Your task to perform on an android device: Go to network settings Image 0: 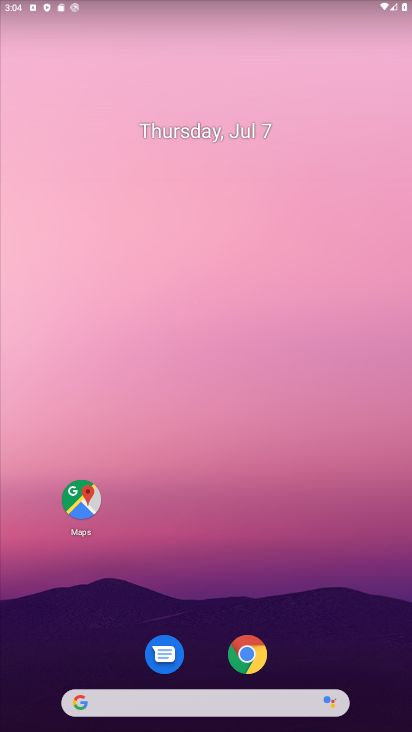
Step 0: drag from (332, 650) to (288, 111)
Your task to perform on an android device: Go to network settings Image 1: 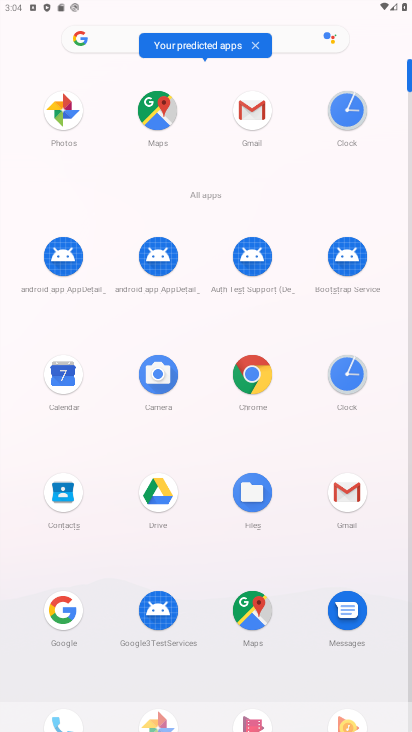
Step 1: drag from (202, 532) to (221, 215)
Your task to perform on an android device: Go to network settings Image 2: 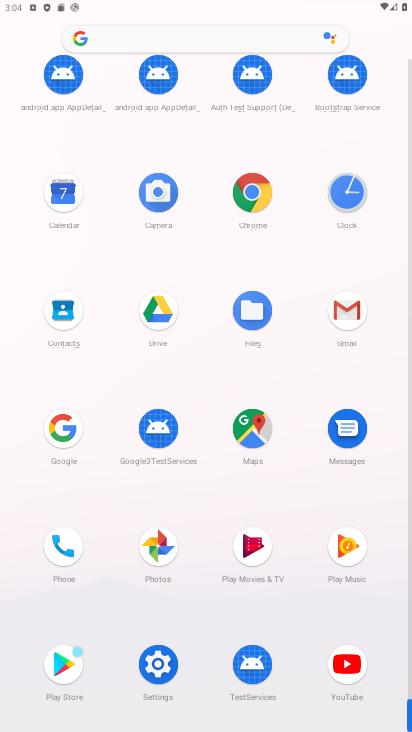
Step 2: click (146, 655)
Your task to perform on an android device: Go to network settings Image 3: 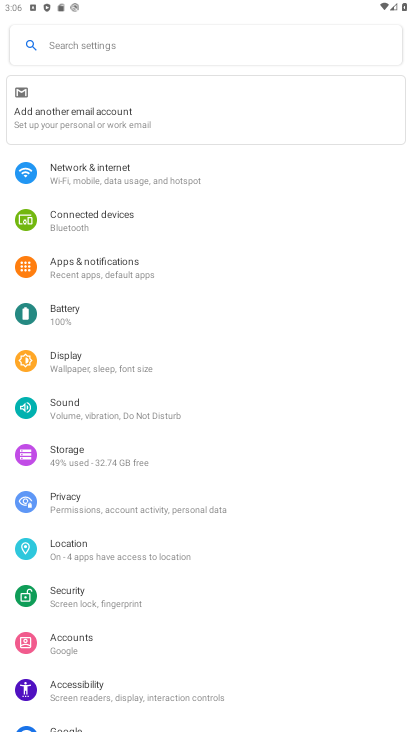
Step 3: click (69, 182)
Your task to perform on an android device: Go to network settings Image 4: 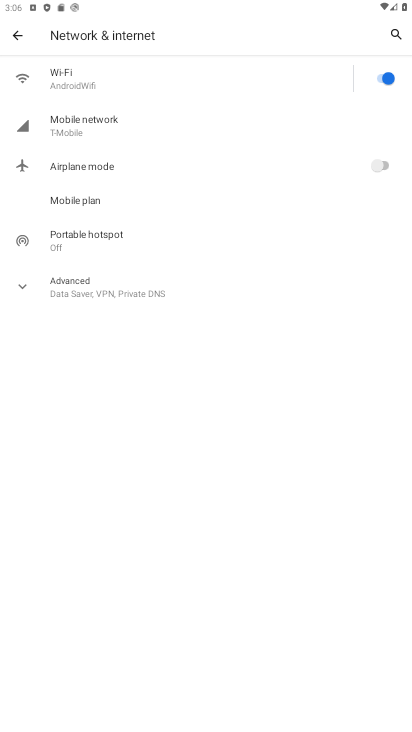
Step 4: task complete